Your task to perform on an android device: toggle notification dots Image 0: 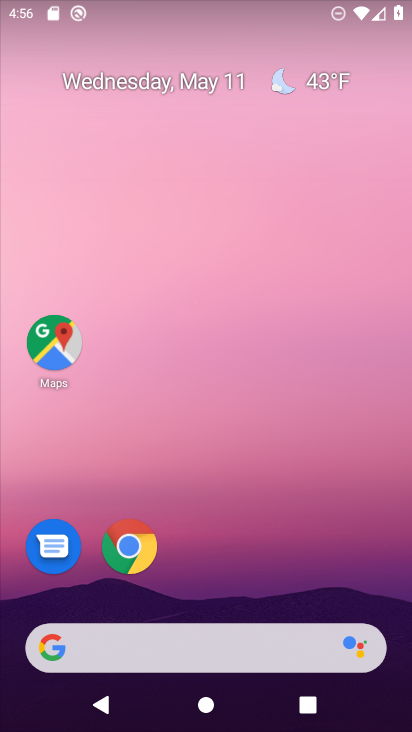
Step 0: drag from (185, 517) to (166, 247)
Your task to perform on an android device: toggle notification dots Image 1: 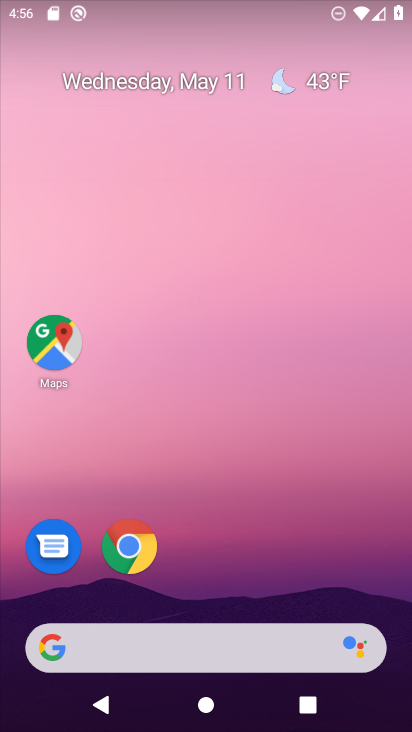
Step 1: drag from (252, 618) to (236, 175)
Your task to perform on an android device: toggle notification dots Image 2: 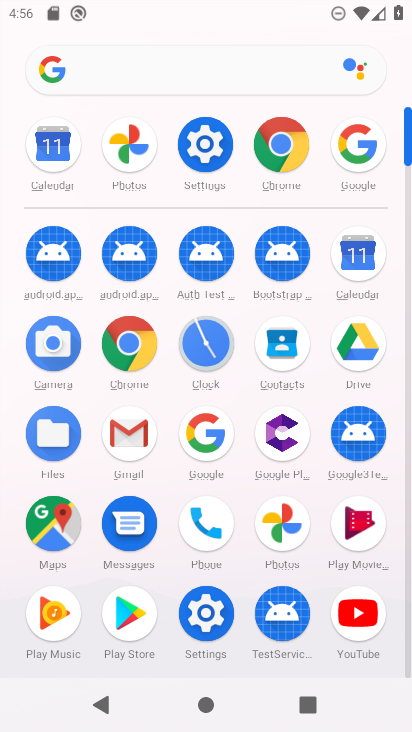
Step 2: click (199, 155)
Your task to perform on an android device: toggle notification dots Image 3: 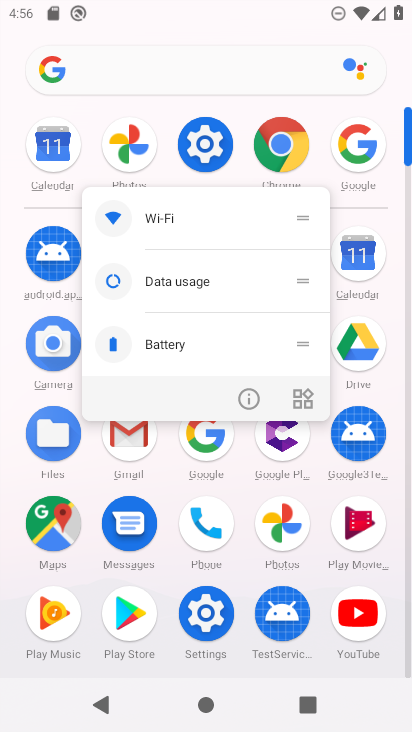
Step 3: click (199, 154)
Your task to perform on an android device: toggle notification dots Image 4: 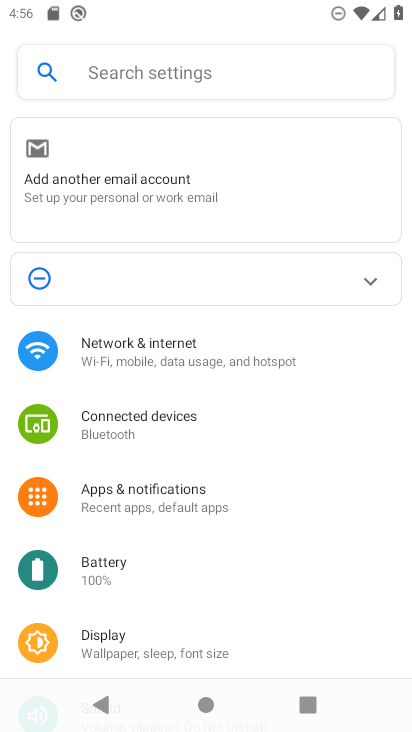
Step 4: click (144, 493)
Your task to perform on an android device: toggle notification dots Image 5: 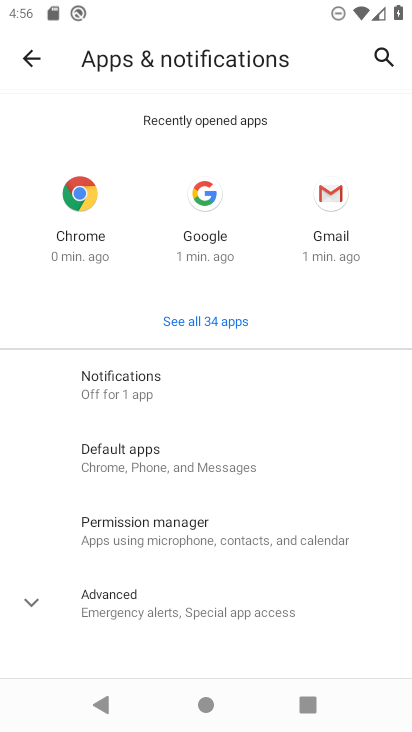
Step 5: click (164, 385)
Your task to perform on an android device: toggle notification dots Image 6: 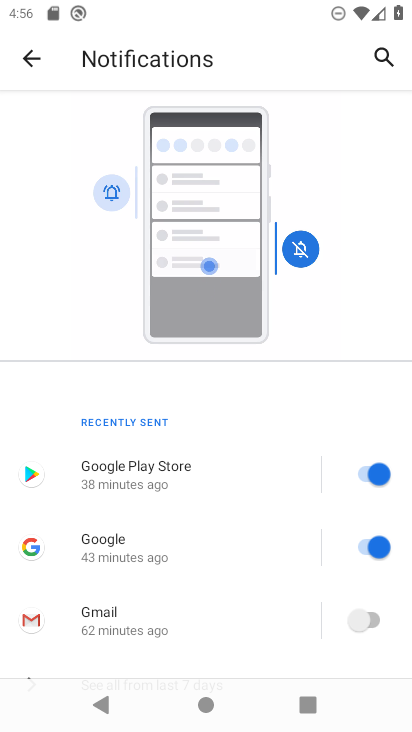
Step 6: drag from (203, 639) to (105, 254)
Your task to perform on an android device: toggle notification dots Image 7: 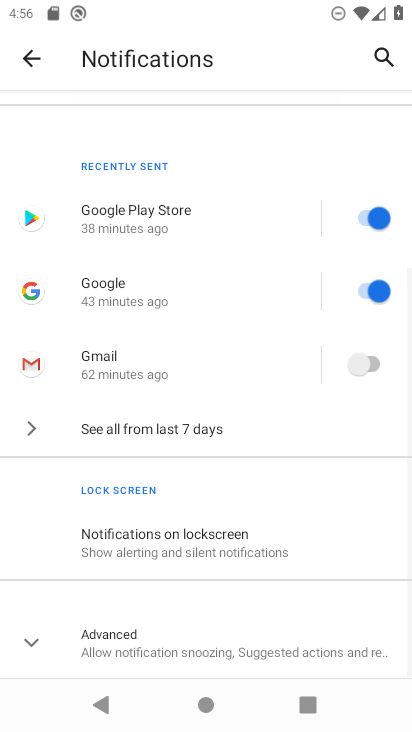
Step 7: click (181, 644)
Your task to perform on an android device: toggle notification dots Image 8: 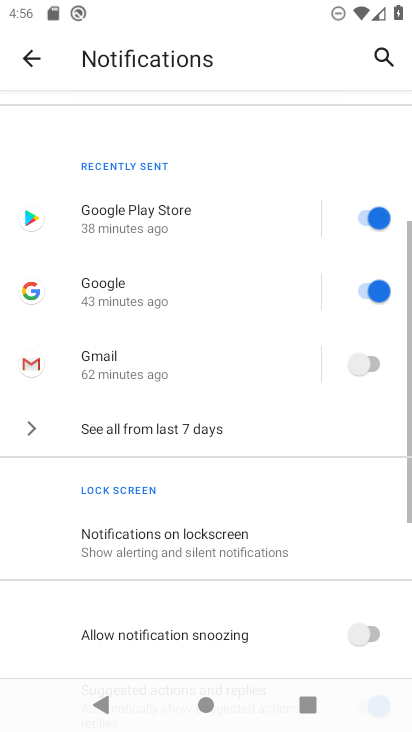
Step 8: task complete